Your task to perform on an android device: Play some music on YouTube Image 0: 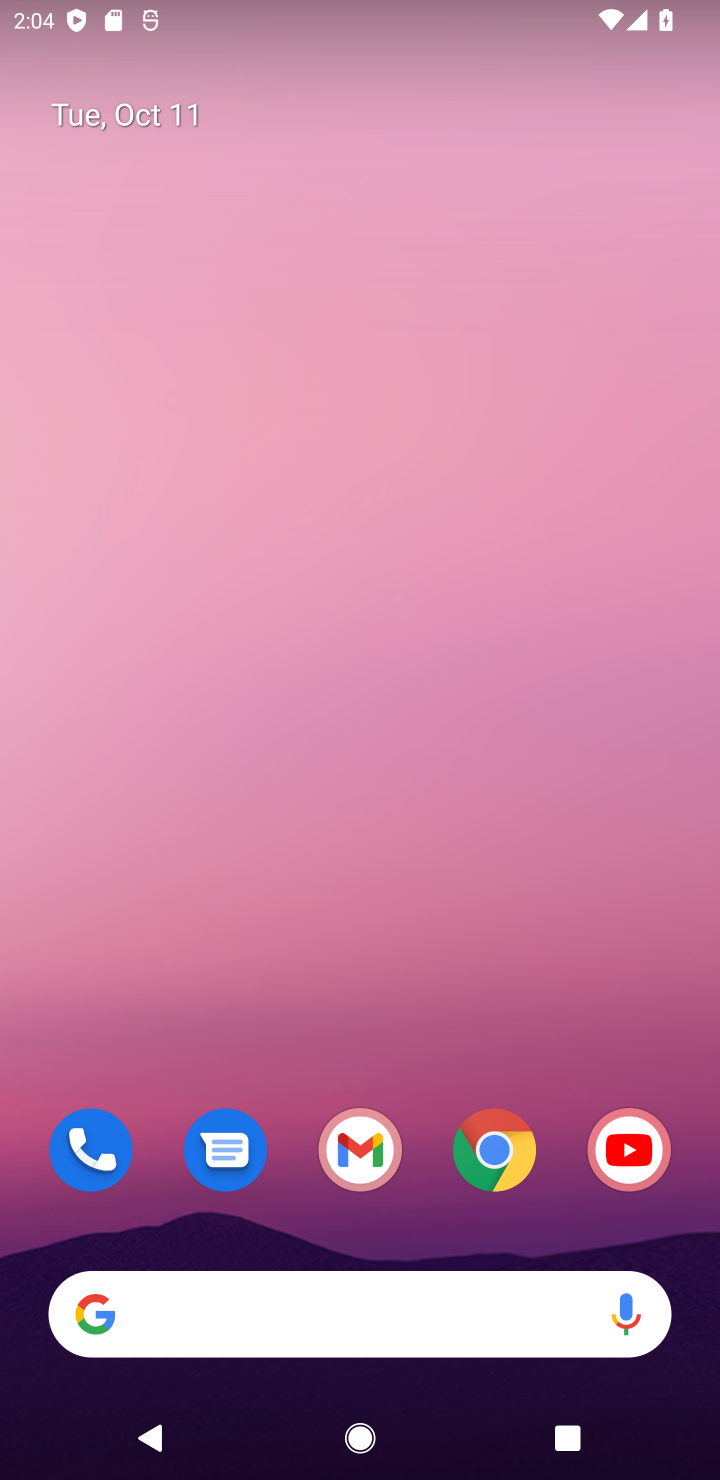
Step 0: drag from (194, 1313) to (320, 439)
Your task to perform on an android device: Play some music on YouTube Image 1: 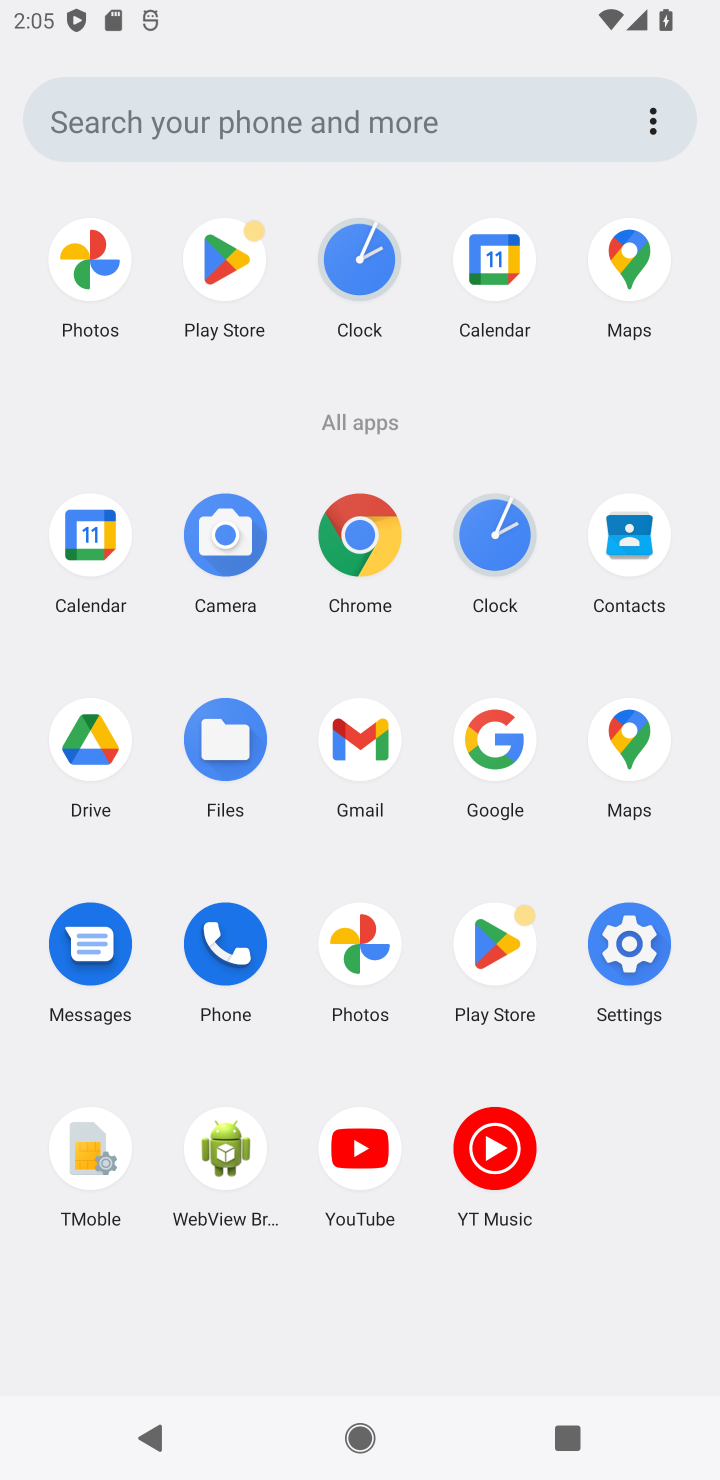
Step 1: click (357, 1155)
Your task to perform on an android device: Play some music on YouTube Image 2: 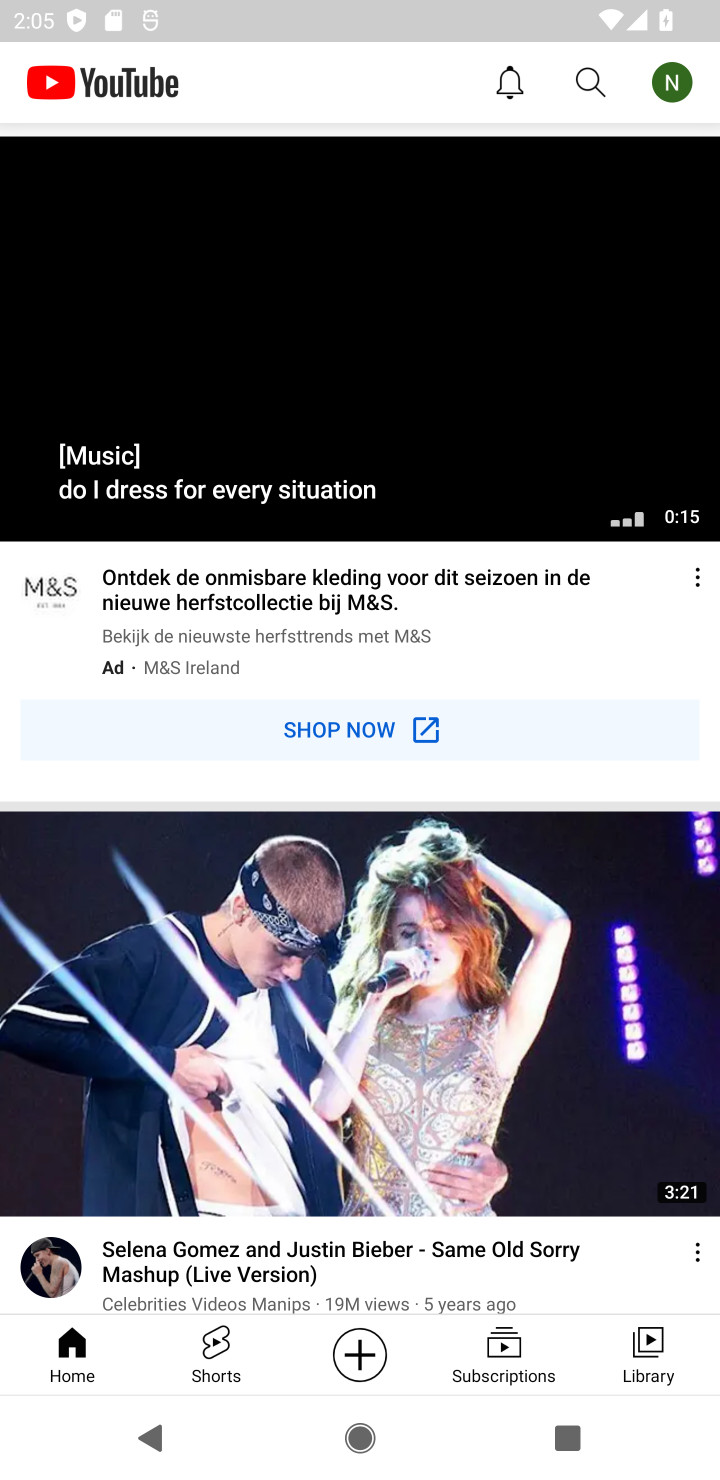
Step 2: click (290, 983)
Your task to perform on an android device: Play some music on YouTube Image 3: 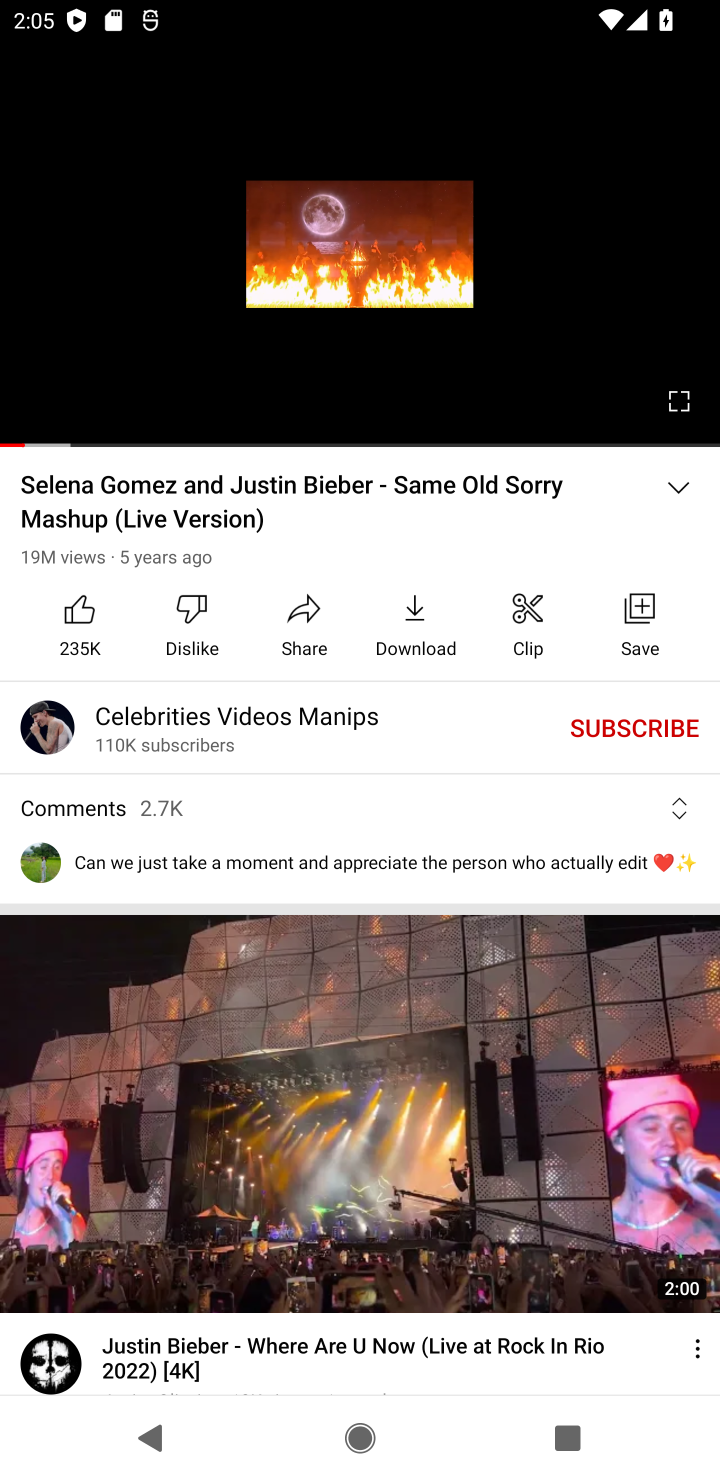
Step 3: task complete